Your task to perform on an android device: Go to Amazon Image 0: 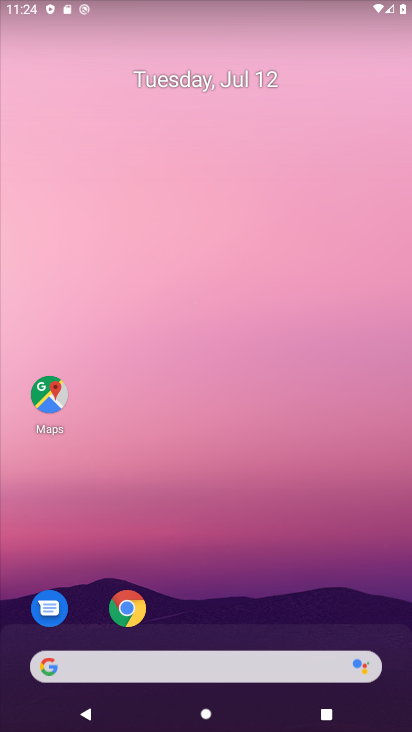
Step 0: click (124, 608)
Your task to perform on an android device: Go to Amazon Image 1: 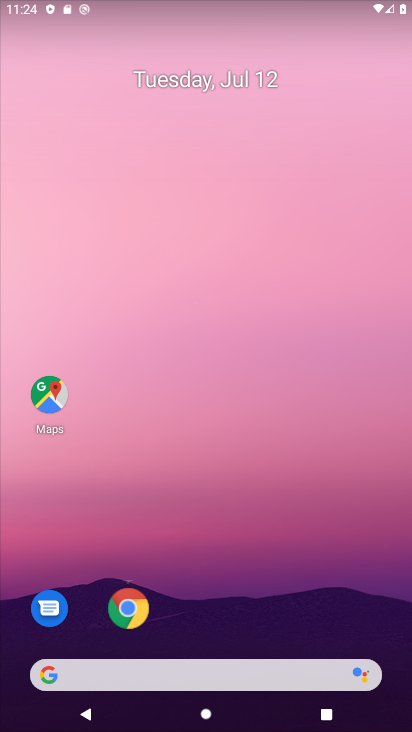
Step 1: click (126, 604)
Your task to perform on an android device: Go to Amazon Image 2: 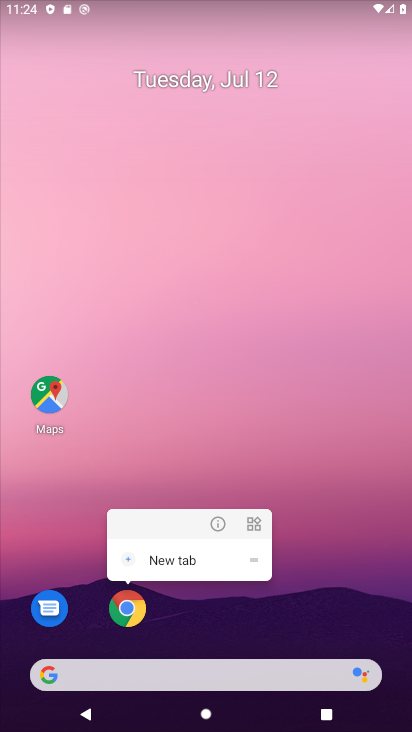
Step 2: click (220, 517)
Your task to perform on an android device: Go to Amazon Image 3: 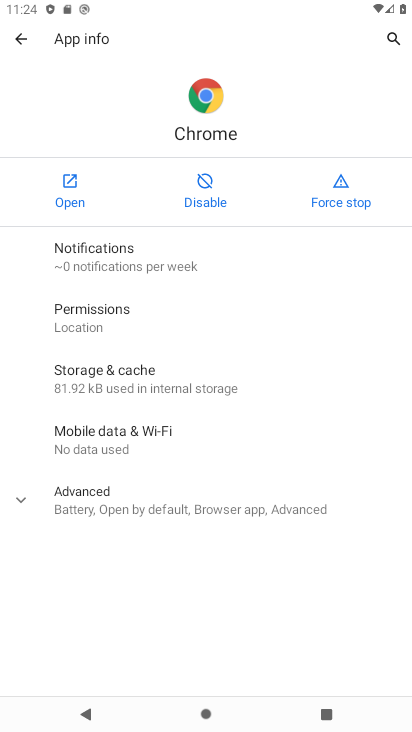
Step 3: click (71, 186)
Your task to perform on an android device: Go to Amazon Image 4: 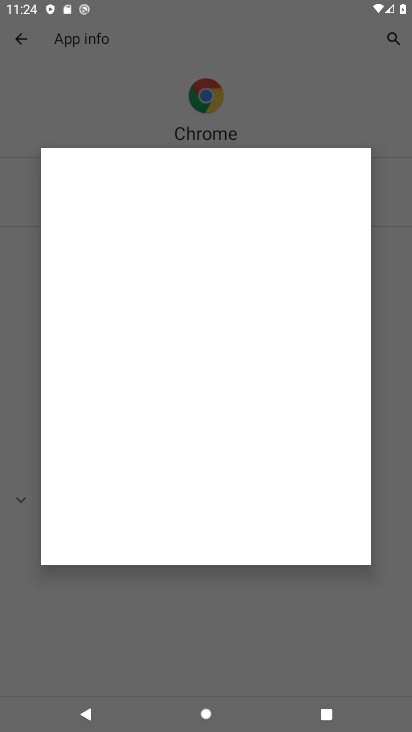
Step 4: drag from (205, 451) to (274, 176)
Your task to perform on an android device: Go to Amazon Image 5: 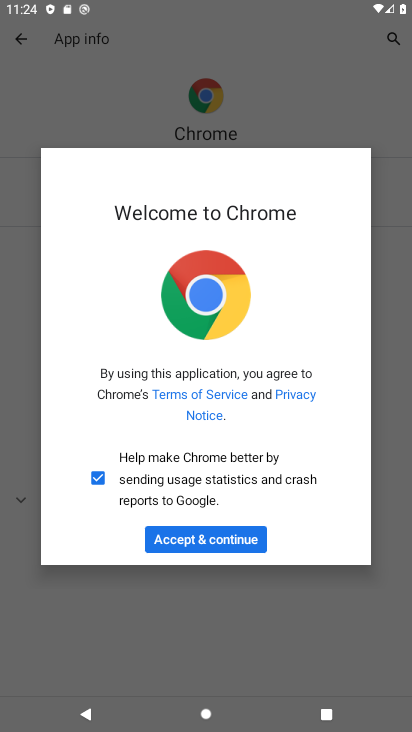
Step 5: click (226, 534)
Your task to perform on an android device: Go to Amazon Image 6: 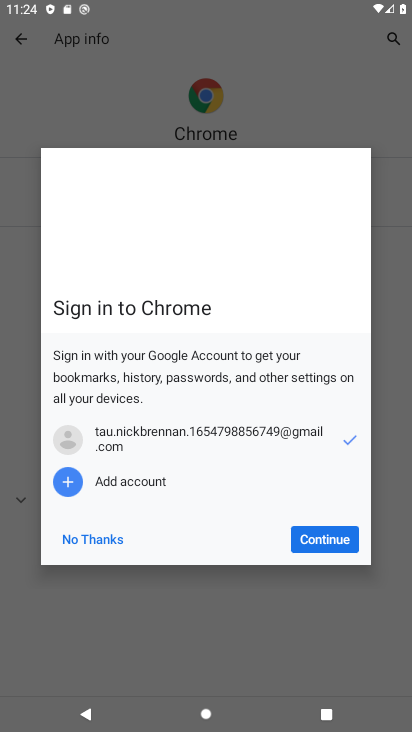
Step 6: click (353, 530)
Your task to perform on an android device: Go to Amazon Image 7: 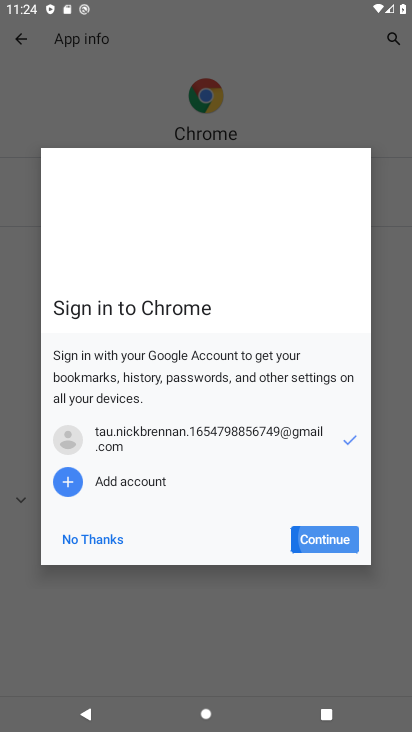
Step 7: click (336, 533)
Your task to perform on an android device: Go to Amazon Image 8: 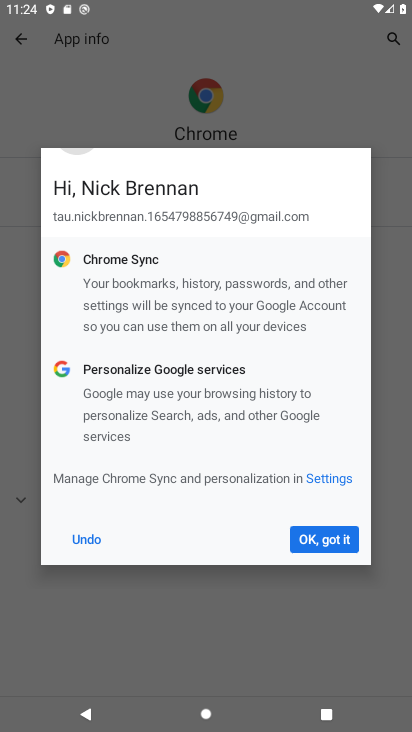
Step 8: click (329, 536)
Your task to perform on an android device: Go to Amazon Image 9: 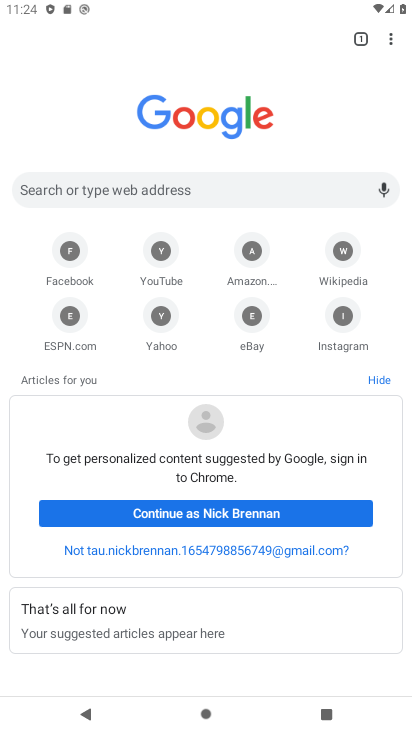
Step 9: drag from (256, 526) to (294, 181)
Your task to perform on an android device: Go to Amazon Image 10: 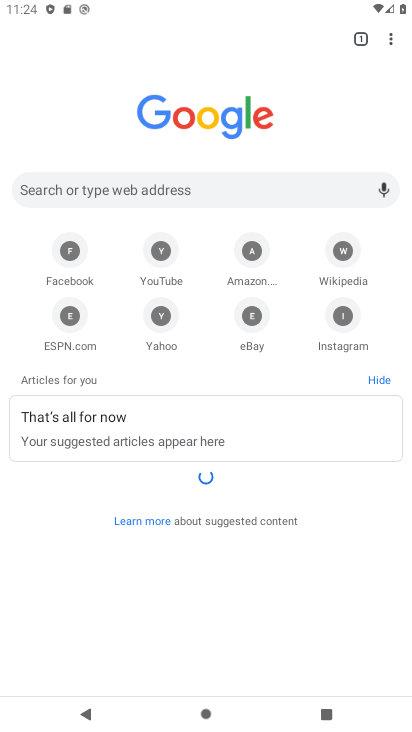
Step 10: drag from (210, 308) to (252, 639)
Your task to perform on an android device: Go to Amazon Image 11: 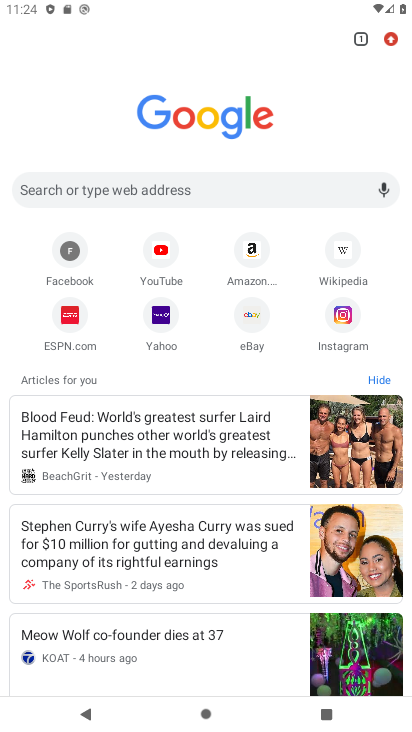
Step 11: click (254, 248)
Your task to perform on an android device: Go to Amazon Image 12: 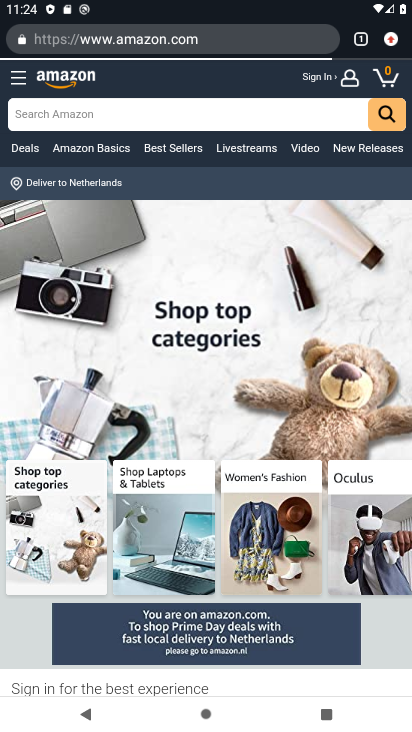
Step 12: click (322, 151)
Your task to perform on an android device: Go to Amazon Image 13: 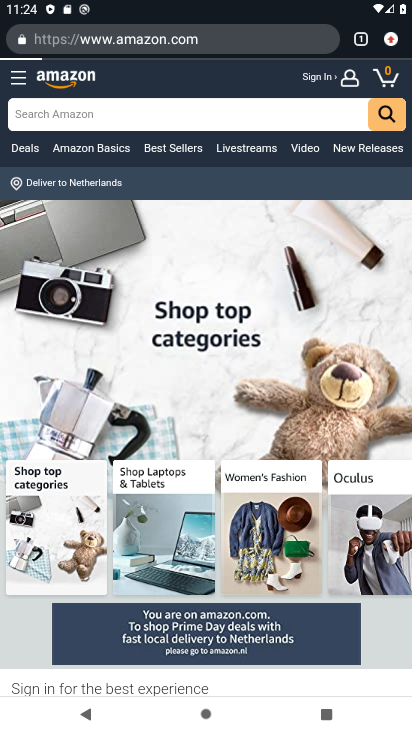
Step 13: task complete